Your task to perform on an android device: empty trash in the gmail app Image 0: 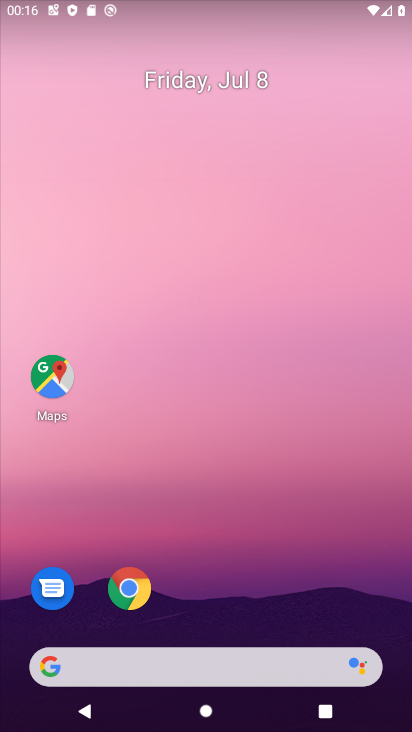
Step 0: drag from (197, 568) to (279, 78)
Your task to perform on an android device: empty trash in the gmail app Image 1: 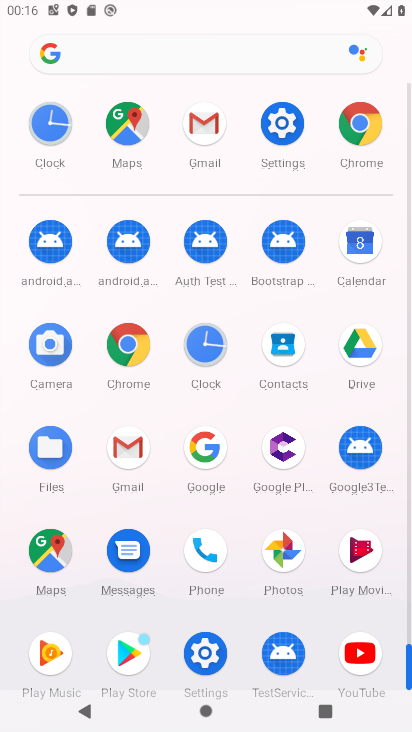
Step 1: click (124, 452)
Your task to perform on an android device: empty trash in the gmail app Image 2: 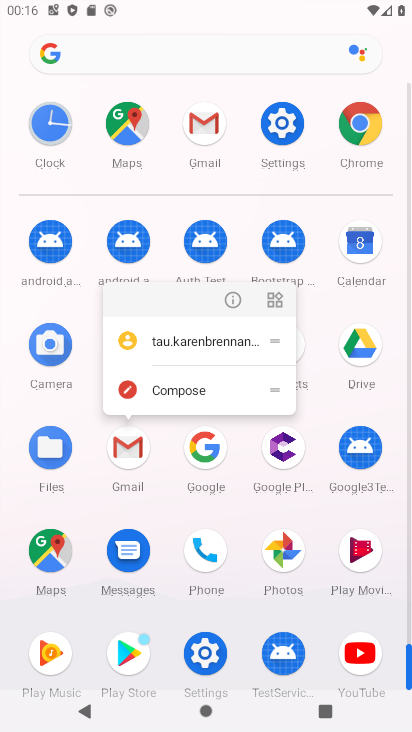
Step 2: click (230, 294)
Your task to perform on an android device: empty trash in the gmail app Image 3: 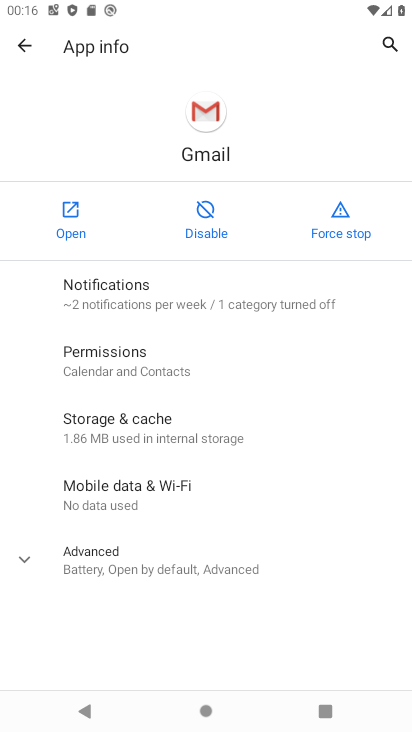
Step 3: click (71, 211)
Your task to perform on an android device: empty trash in the gmail app Image 4: 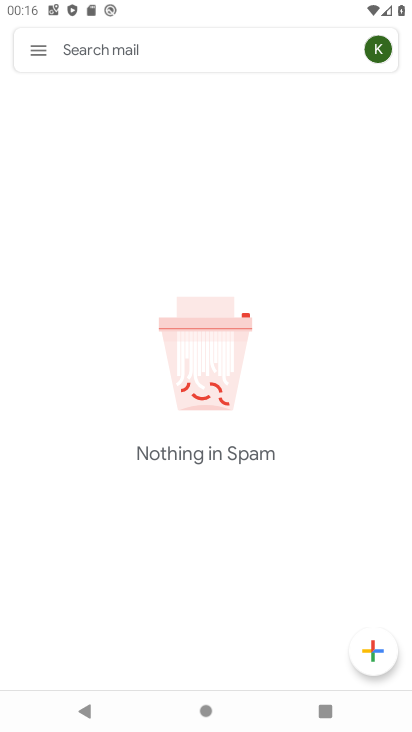
Step 4: click (39, 49)
Your task to perform on an android device: empty trash in the gmail app Image 5: 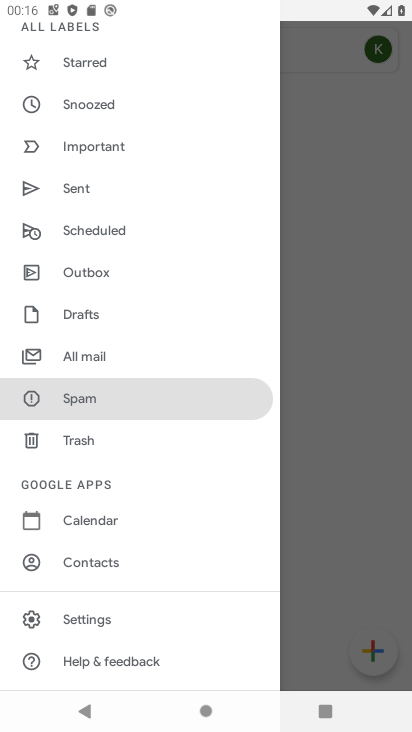
Step 5: click (72, 439)
Your task to perform on an android device: empty trash in the gmail app Image 6: 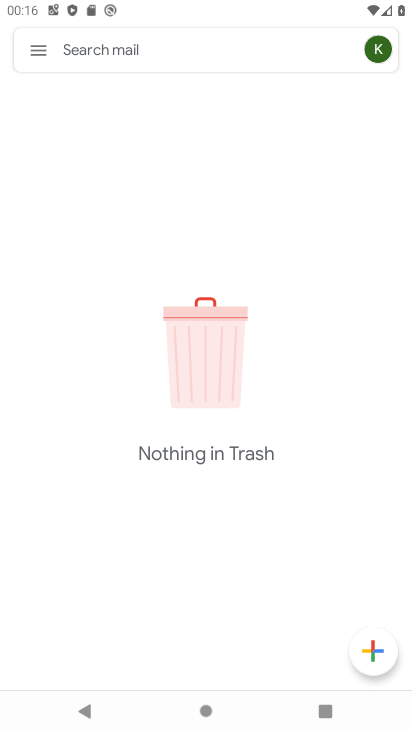
Step 6: task complete